Your task to perform on an android device: set the timer Image 0: 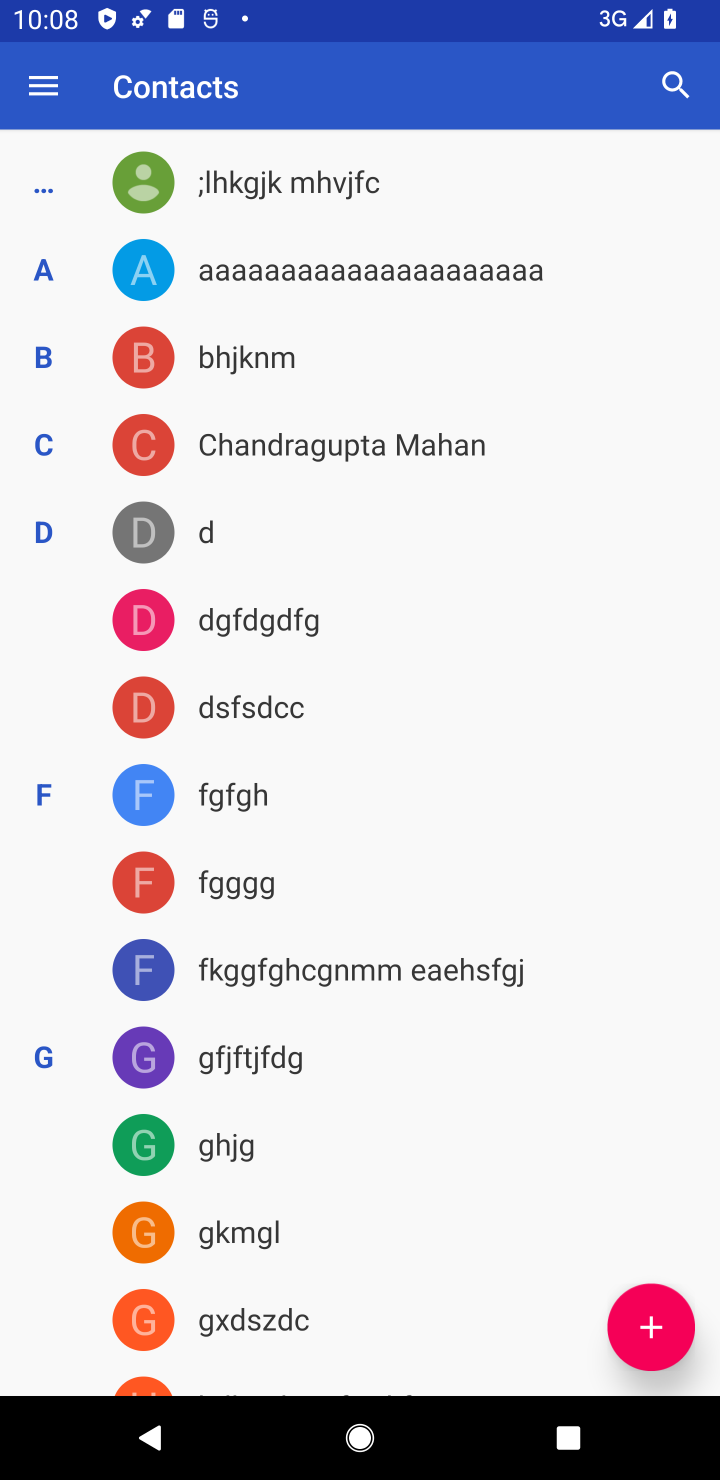
Step 0: press home button
Your task to perform on an android device: set the timer Image 1: 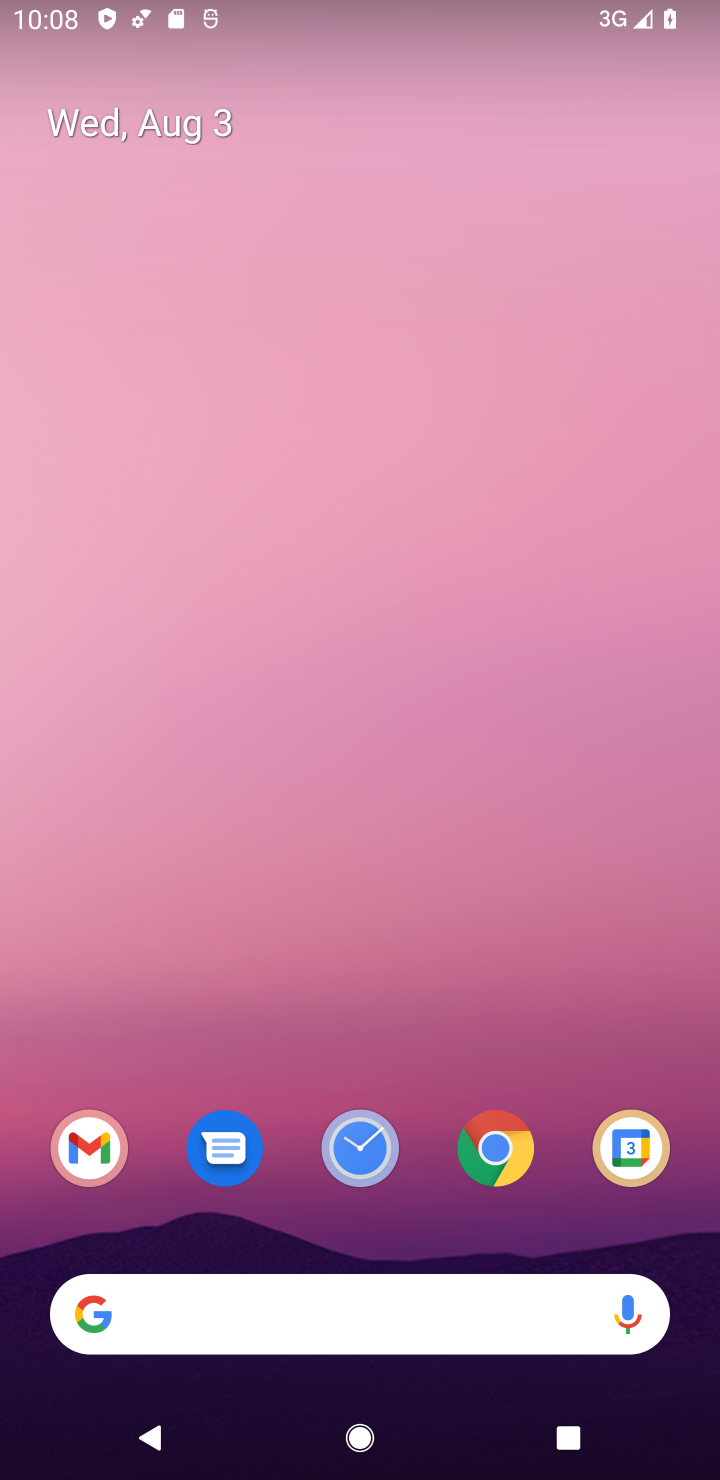
Step 1: drag from (457, 1015) to (448, 276)
Your task to perform on an android device: set the timer Image 2: 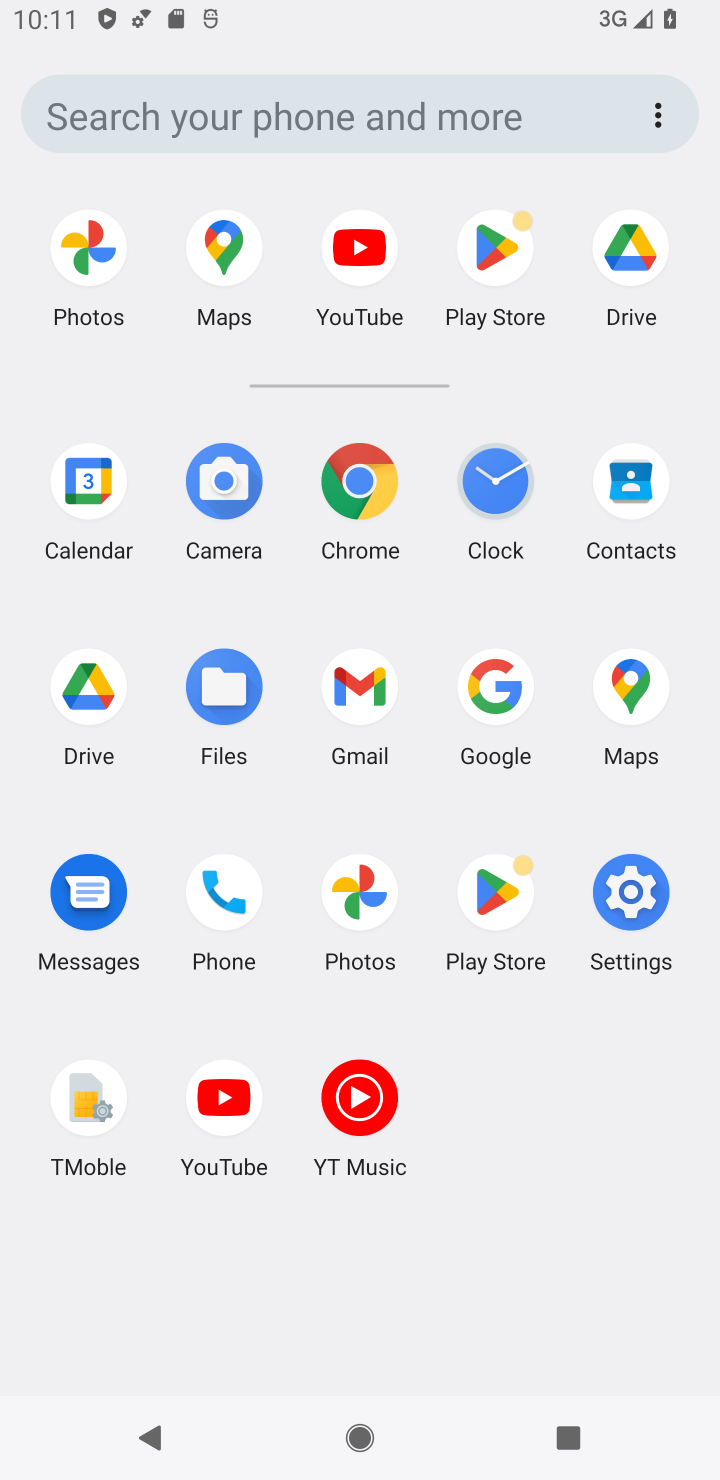
Step 2: click (516, 499)
Your task to perform on an android device: set the timer Image 3: 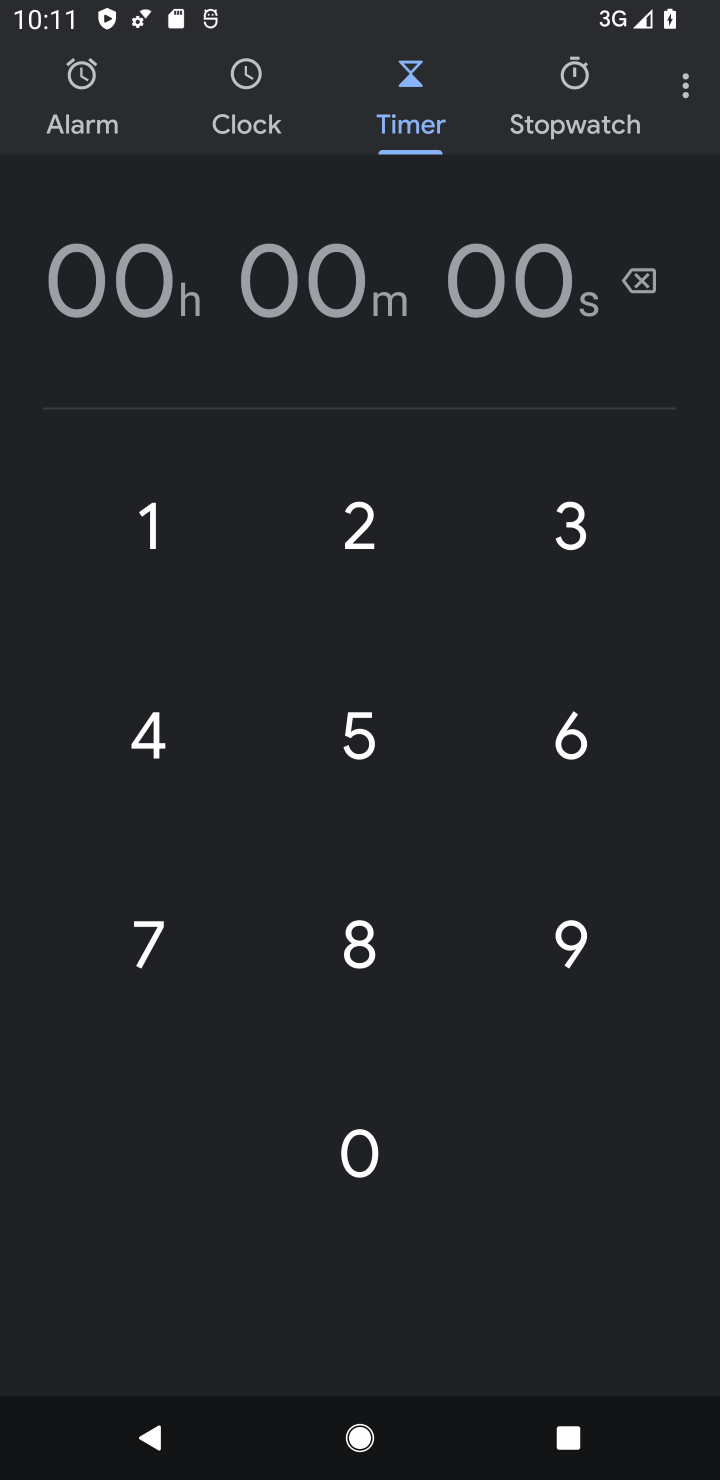
Step 3: click (314, 276)
Your task to perform on an android device: set the timer Image 4: 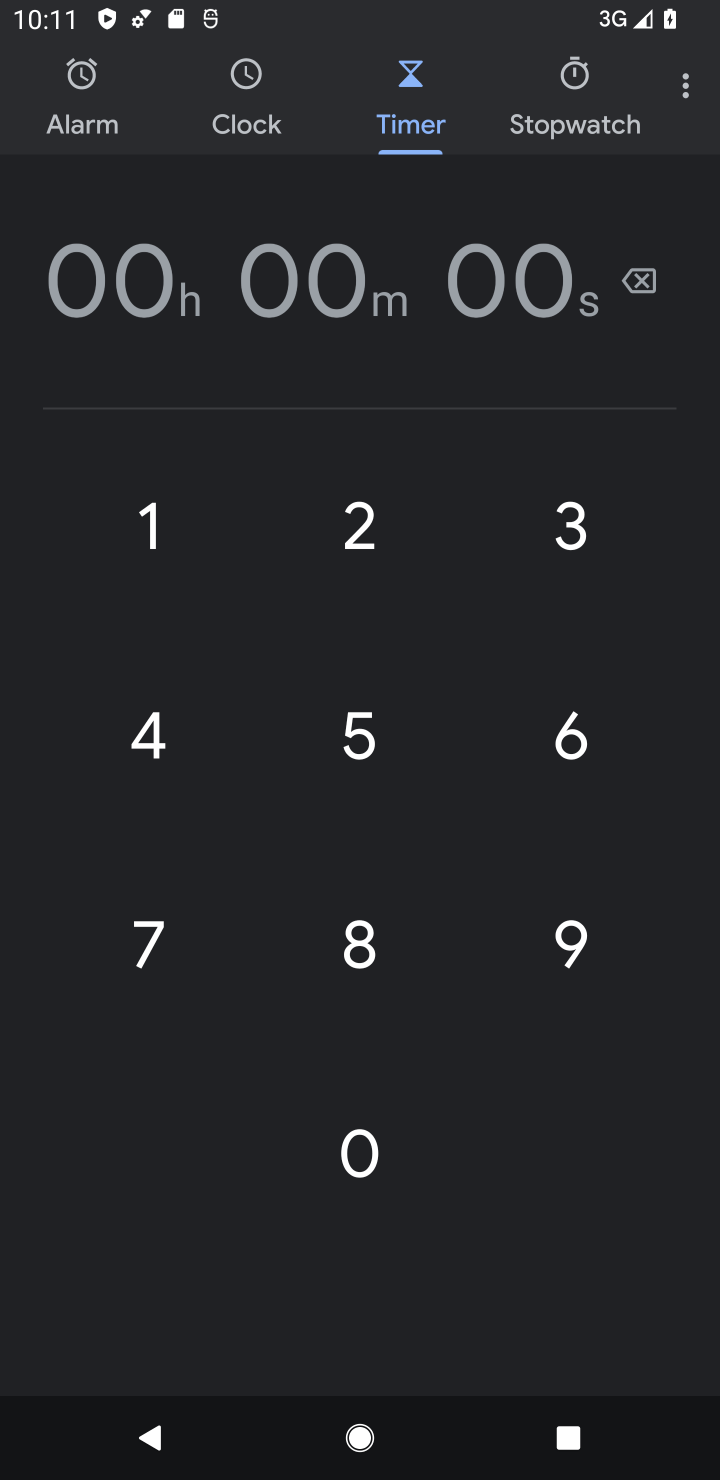
Step 4: click (372, 568)
Your task to perform on an android device: set the timer Image 5: 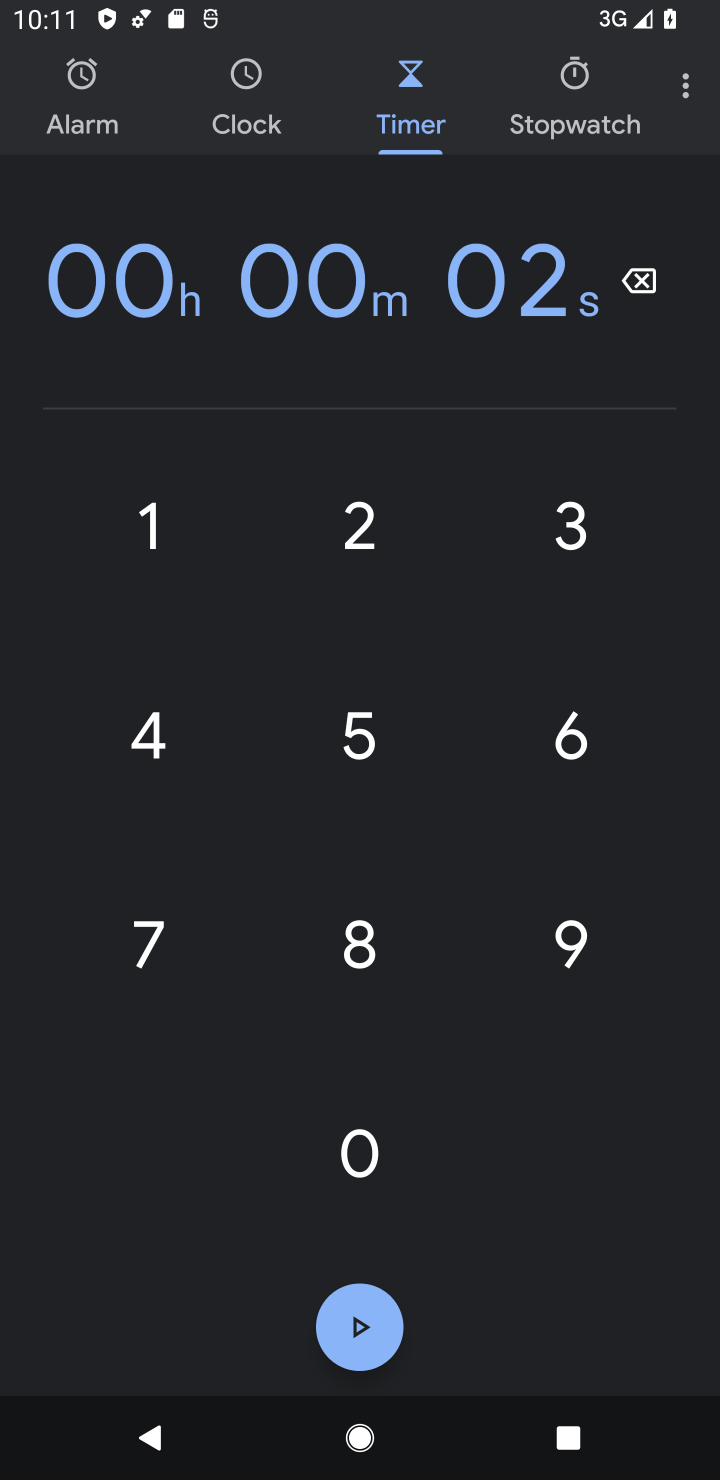
Step 5: click (368, 718)
Your task to perform on an android device: set the timer Image 6: 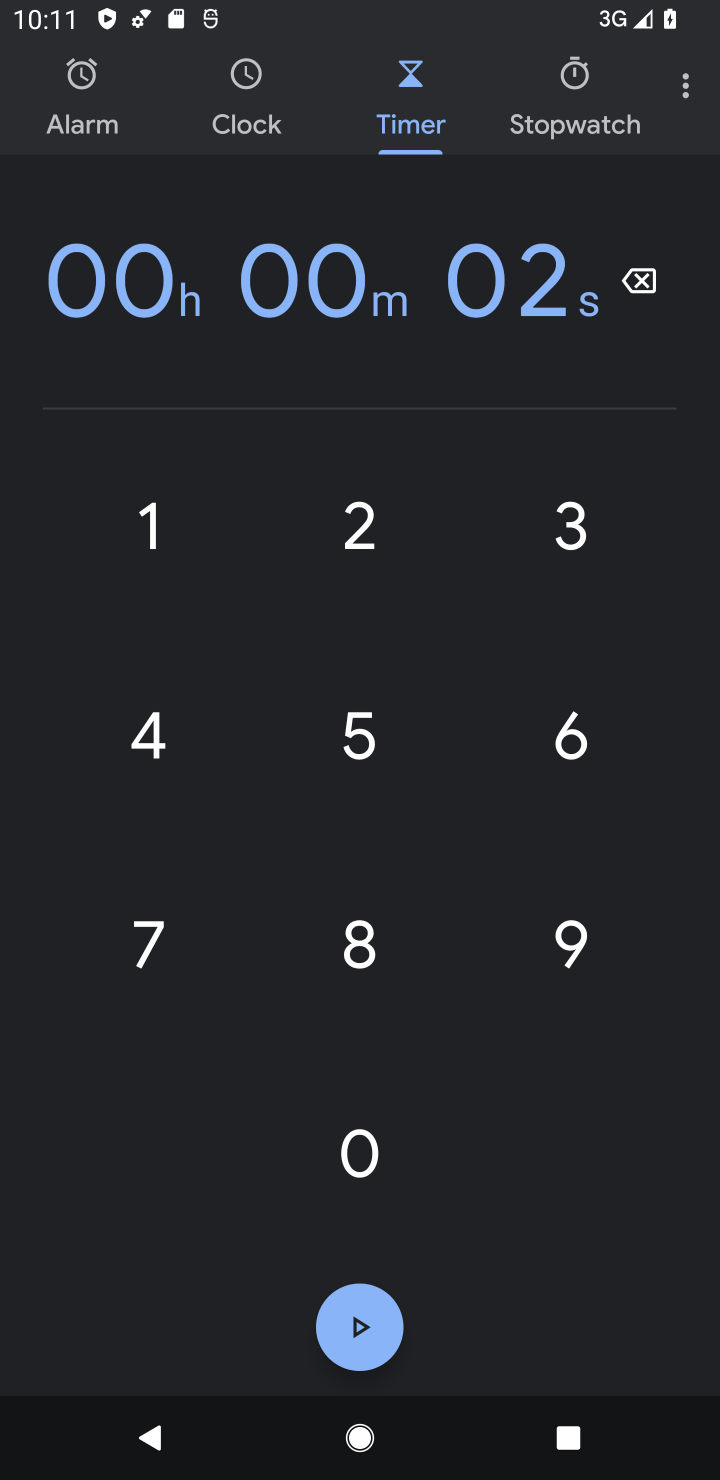
Step 6: click (368, 718)
Your task to perform on an android device: set the timer Image 7: 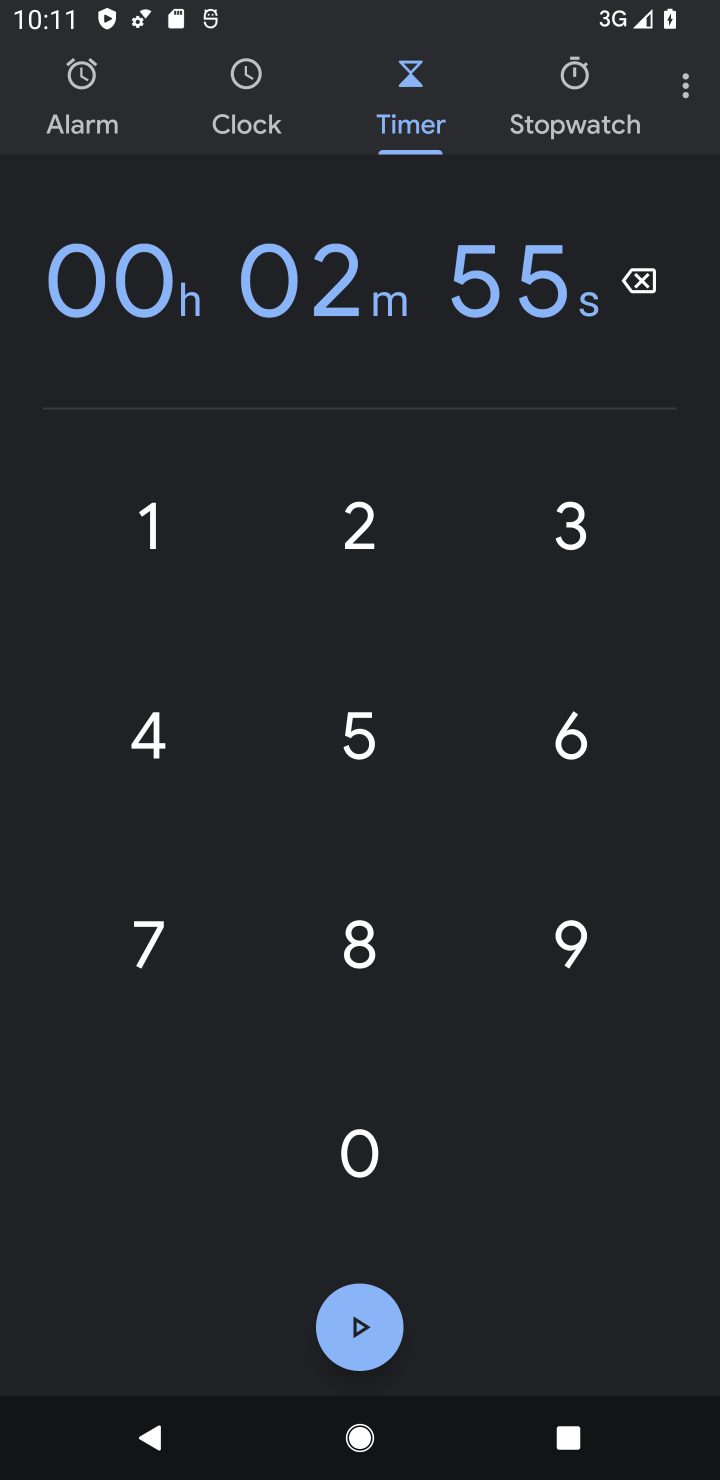
Step 7: click (557, 729)
Your task to perform on an android device: set the timer Image 8: 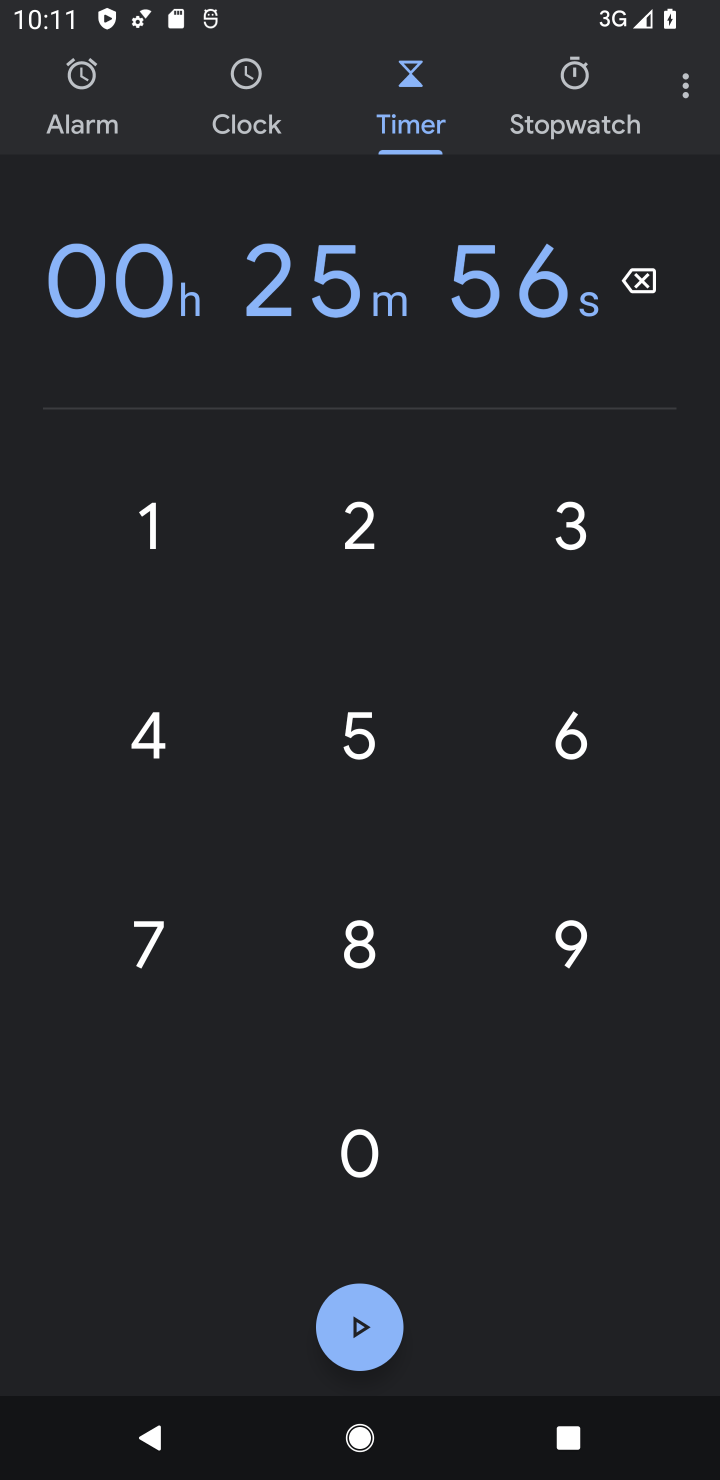
Step 8: click (563, 529)
Your task to perform on an android device: set the timer Image 9: 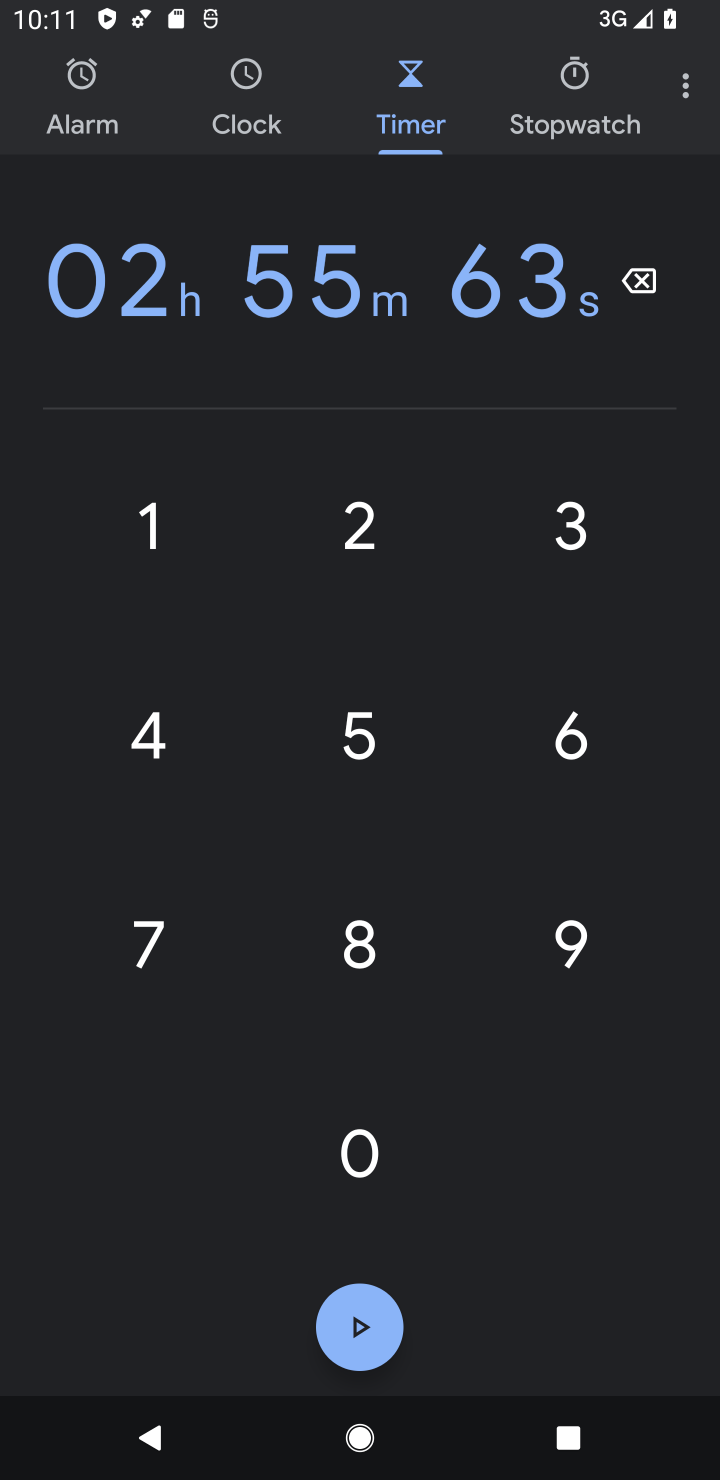
Step 9: task complete